Your task to perform on an android device: toggle wifi Image 0: 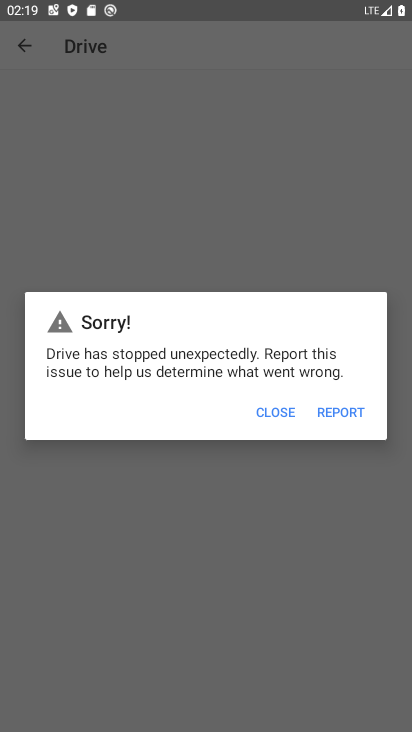
Step 0: press home button
Your task to perform on an android device: toggle wifi Image 1: 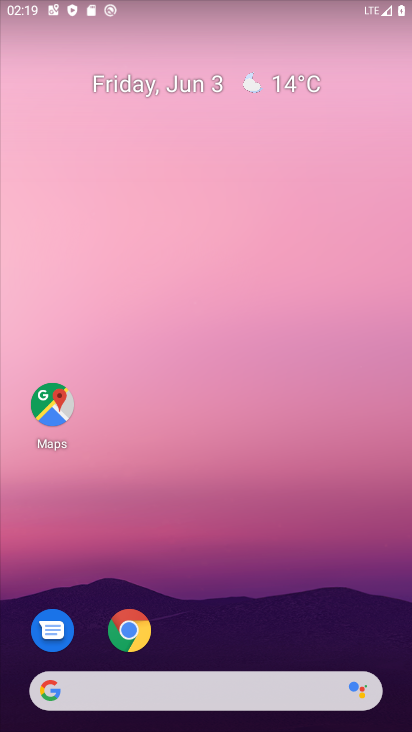
Step 1: drag from (405, 648) to (384, 83)
Your task to perform on an android device: toggle wifi Image 2: 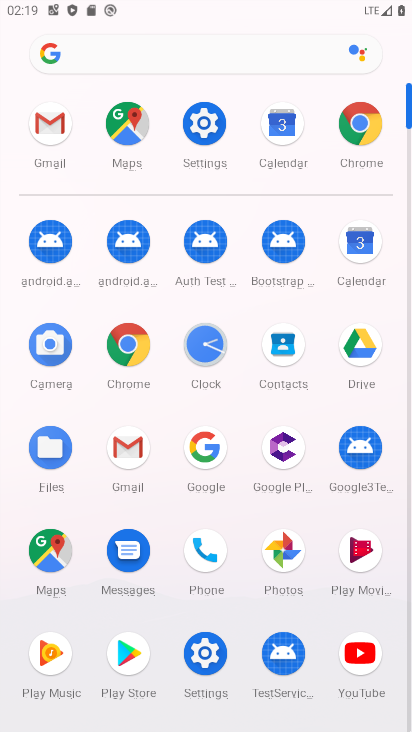
Step 2: click (192, 131)
Your task to perform on an android device: toggle wifi Image 3: 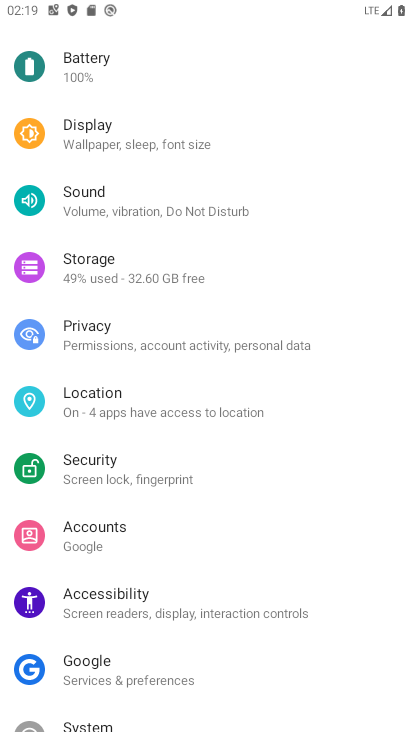
Step 3: drag from (317, 109) to (324, 631)
Your task to perform on an android device: toggle wifi Image 4: 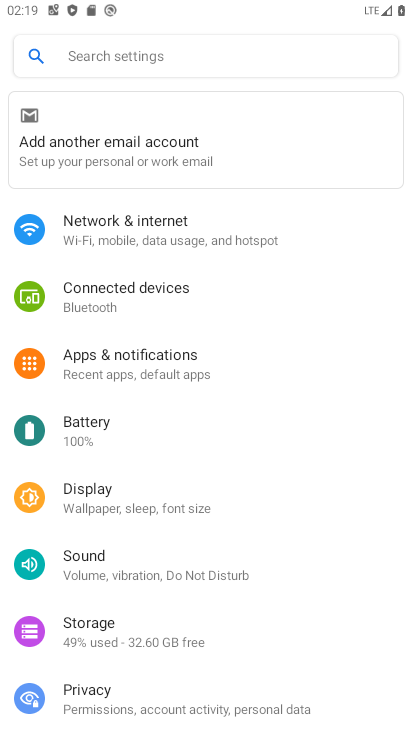
Step 4: click (132, 238)
Your task to perform on an android device: toggle wifi Image 5: 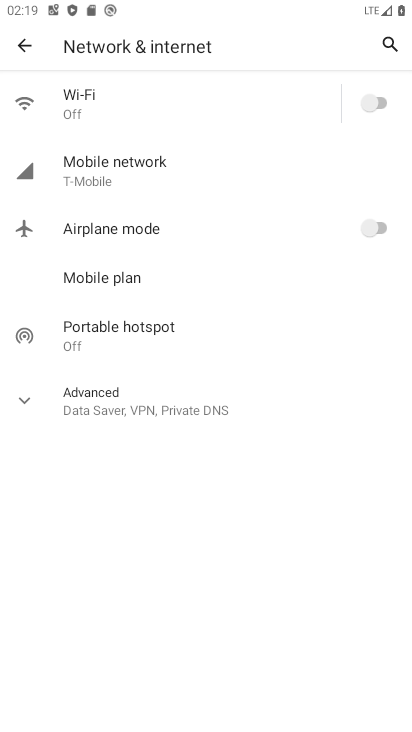
Step 5: click (380, 100)
Your task to perform on an android device: toggle wifi Image 6: 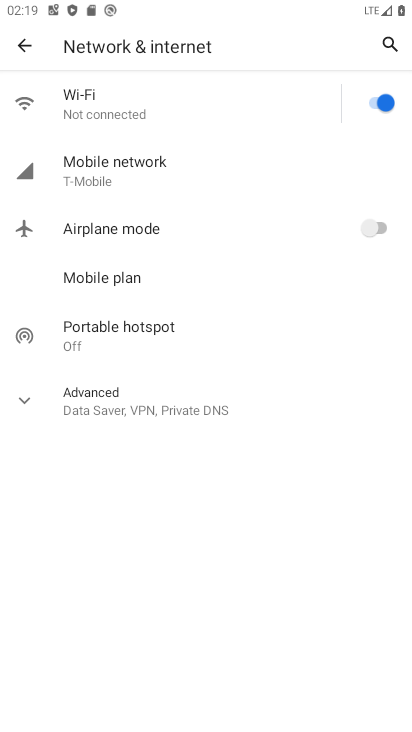
Step 6: task complete